Your task to perform on an android device: change the clock style Image 0: 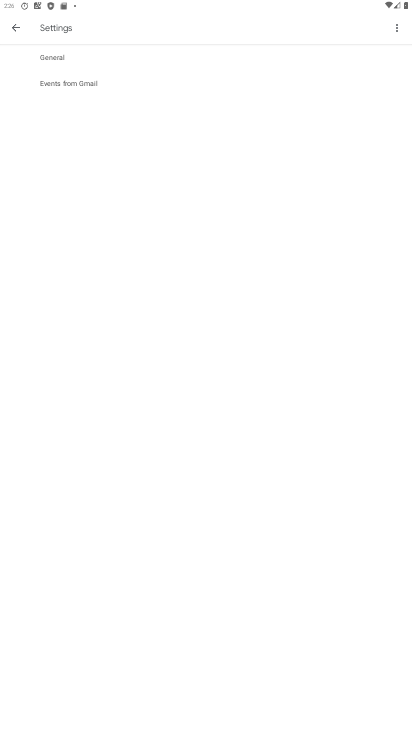
Step 0: press home button
Your task to perform on an android device: change the clock style Image 1: 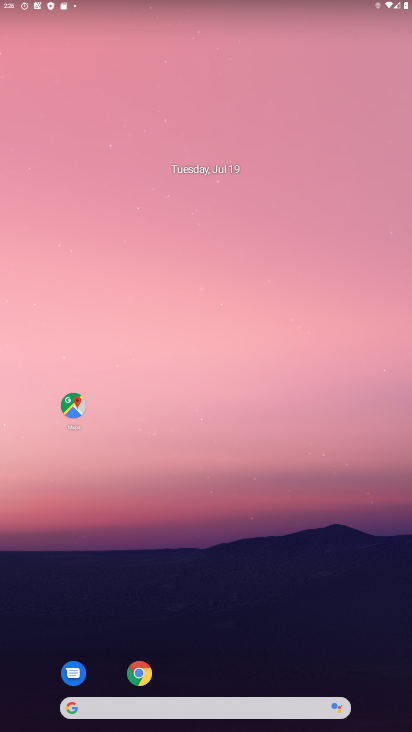
Step 1: drag from (211, 580) to (209, 182)
Your task to perform on an android device: change the clock style Image 2: 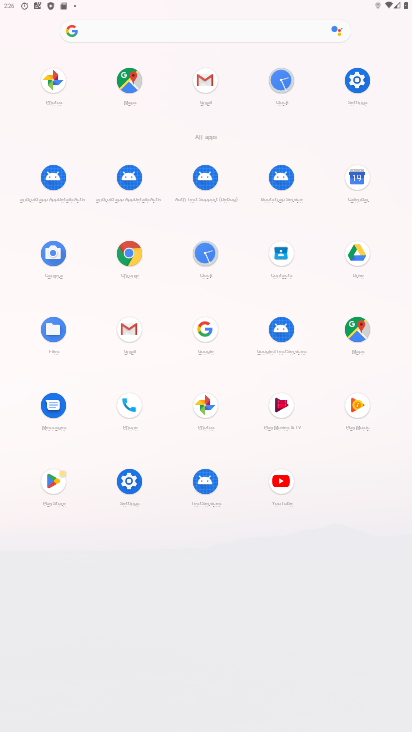
Step 2: click (203, 269)
Your task to perform on an android device: change the clock style Image 3: 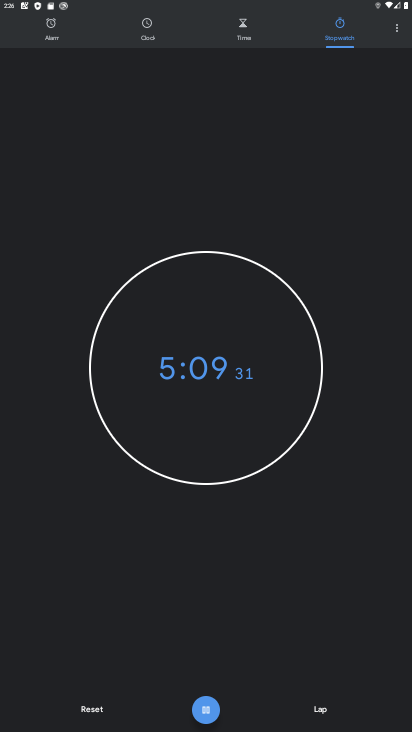
Step 3: click (397, 34)
Your task to perform on an android device: change the clock style Image 4: 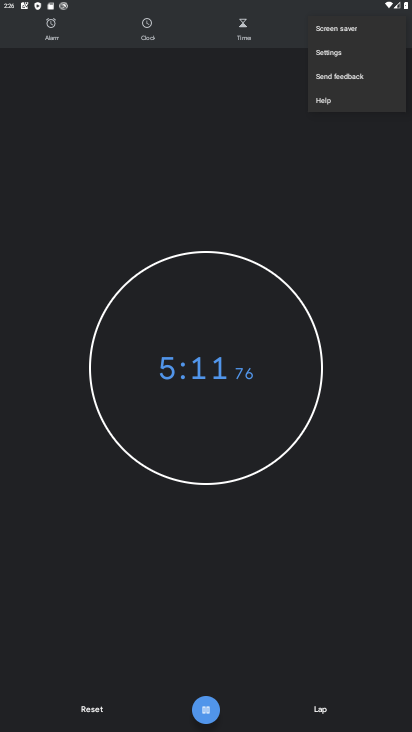
Step 4: click (331, 60)
Your task to perform on an android device: change the clock style Image 5: 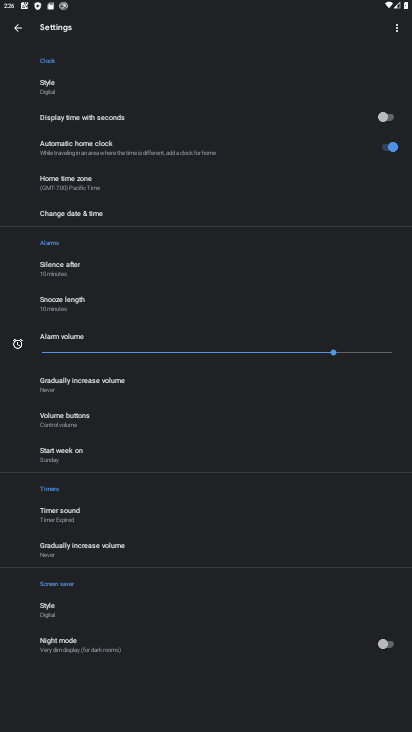
Step 5: click (61, 91)
Your task to perform on an android device: change the clock style Image 6: 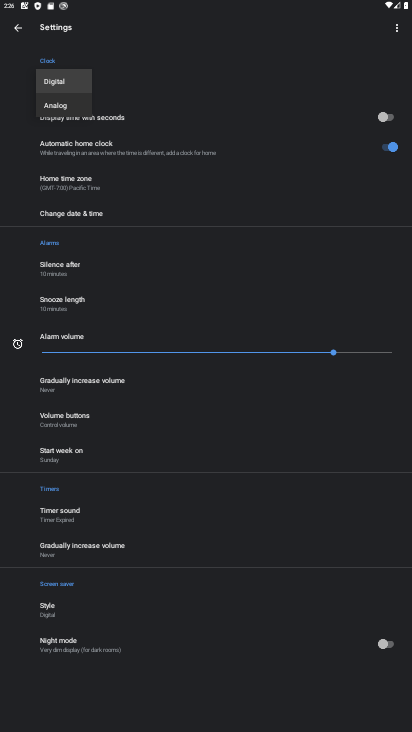
Step 6: click (61, 111)
Your task to perform on an android device: change the clock style Image 7: 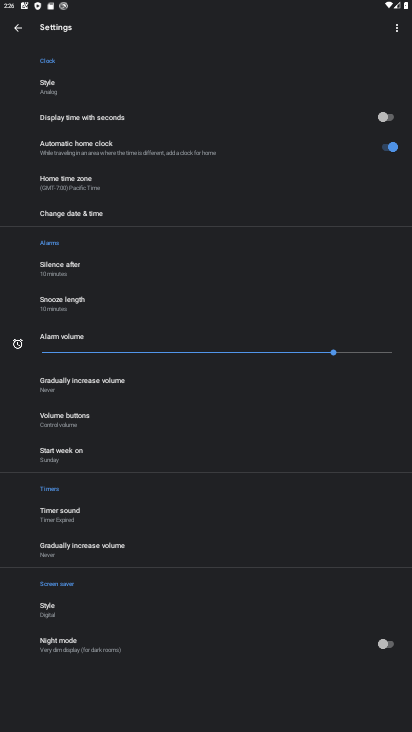
Step 7: task complete